Your task to perform on an android device: Open Chrome and go to the settings page Image 0: 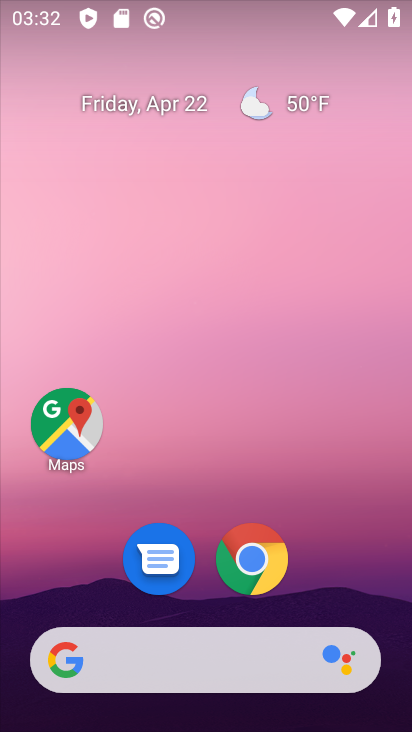
Step 0: drag from (208, 604) to (313, 78)
Your task to perform on an android device: Open Chrome and go to the settings page Image 1: 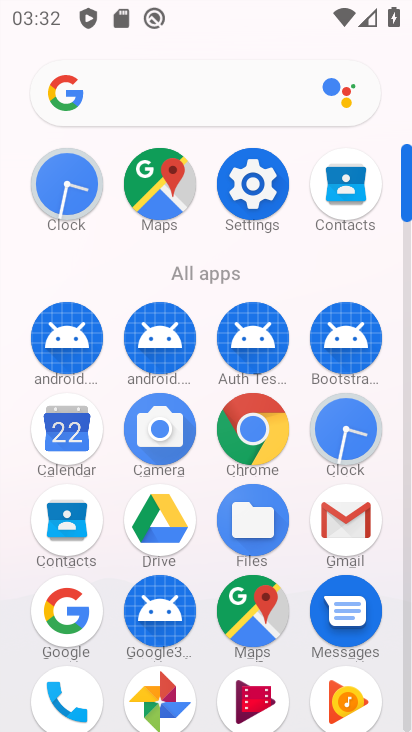
Step 1: click (272, 425)
Your task to perform on an android device: Open Chrome and go to the settings page Image 2: 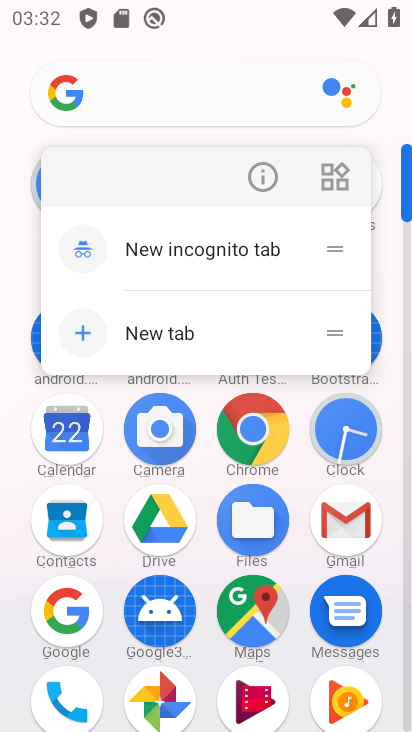
Step 2: click (257, 437)
Your task to perform on an android device: Open Chrome and go to the settings page Image 3: 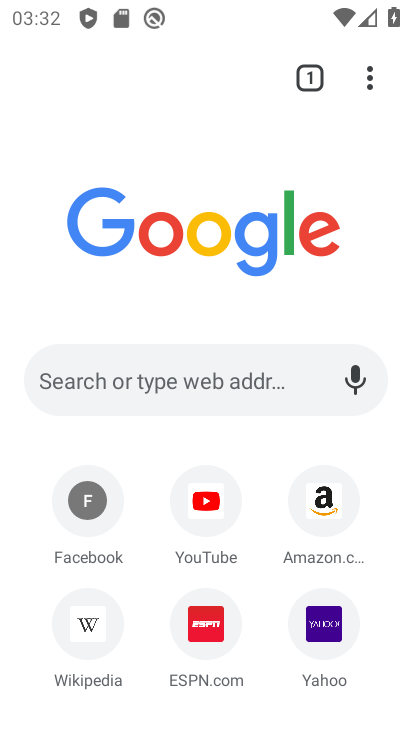
Step 3: task complete